Your task to perform on an android device: turn pop-ups on in chrome Image 0: 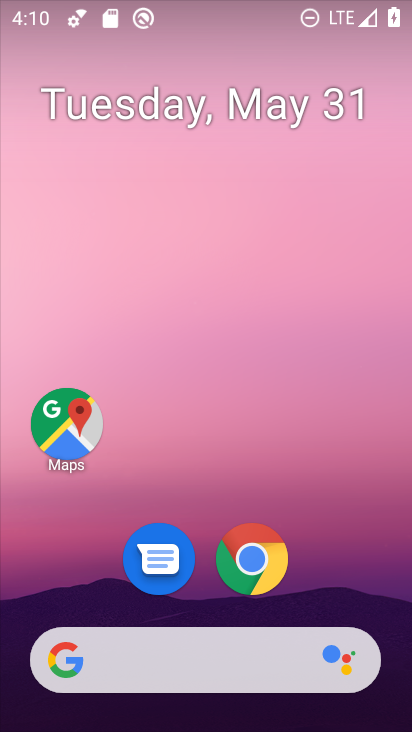
Step 0: click (257, 562)
Your task to perform on an android device: turn pop-ups on in chrome Image 1: 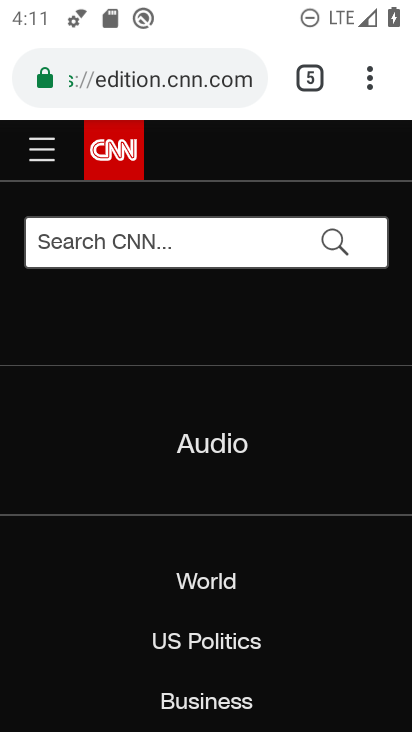
Step 1: click (373, 84)
Your task to perform on an android device: turn pop-ups on in chrome Image 2: 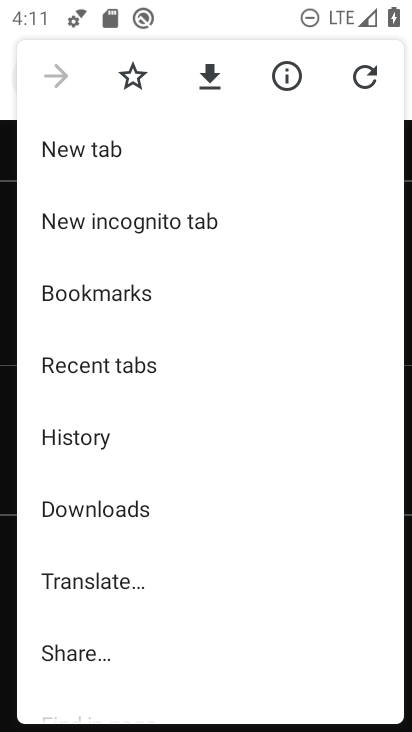
Step 2: drag from (111, 658) to (113, 404)
Your task to perform on an android device: turn pop-ups on in chrome Image 3: 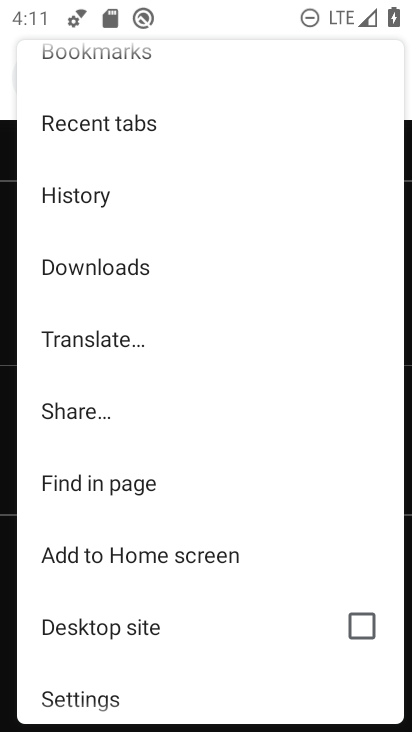
Step 3: drag from (117, 676) to (126, 262)
Your task to perform on an android device: turn pop-ups on in chrome Image 4: 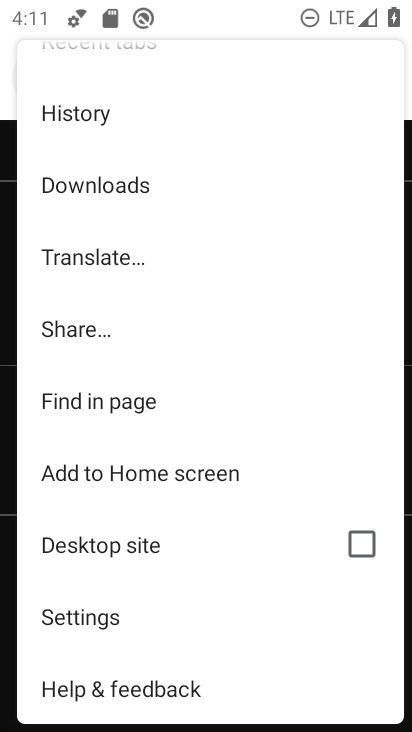
Step 4: click (97, 616)
Your task to perform on an android device: turn pop-ups on in chrome Image 5: 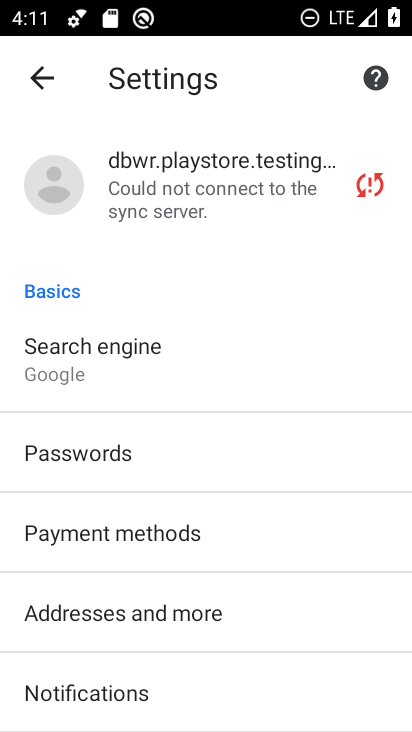
Step 5: drag from (160, 657) to (160, 532)
Your task to perform on an android device: turn pop-ups on in chrome Image 6: 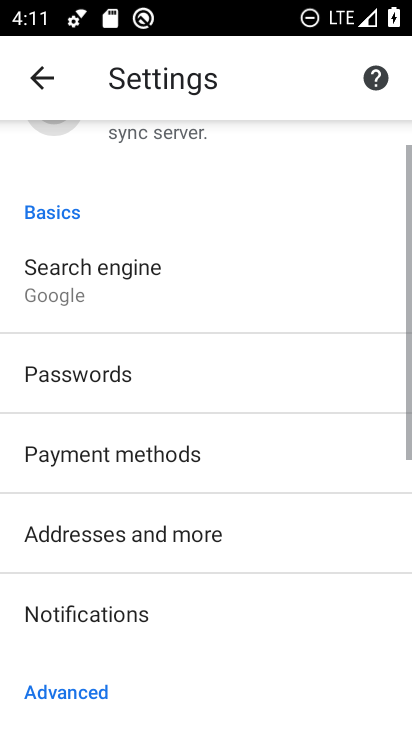
Step 6: drag from (161, 469) to (161, 287)
Your task to perform on an android device: turn pop-ups on in chrome Image 7: 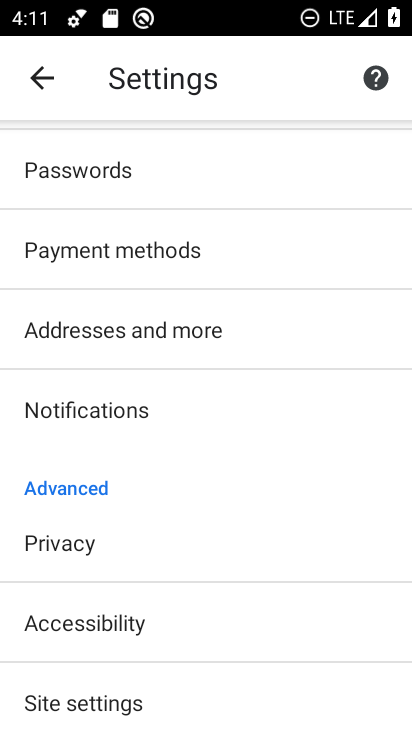
Step 7: click (120, 697)
Your task to perform on an android device: turn pop-ups on in chrome Image 8: 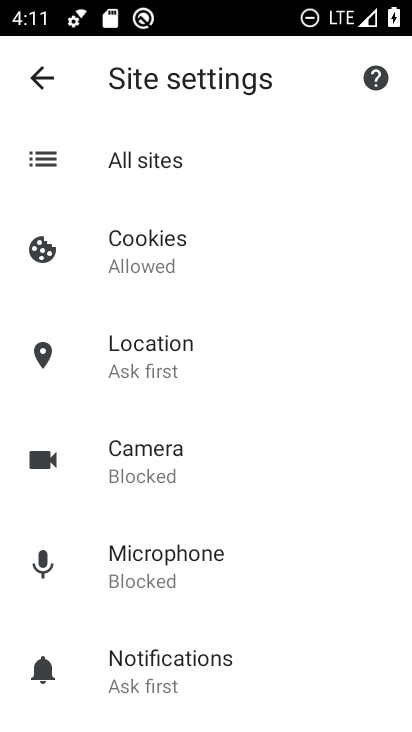
Step 8: drag from (176, 703) to (183, 288)
Your task to perform on an android device: turn pop-ups on in chrome Image 9: 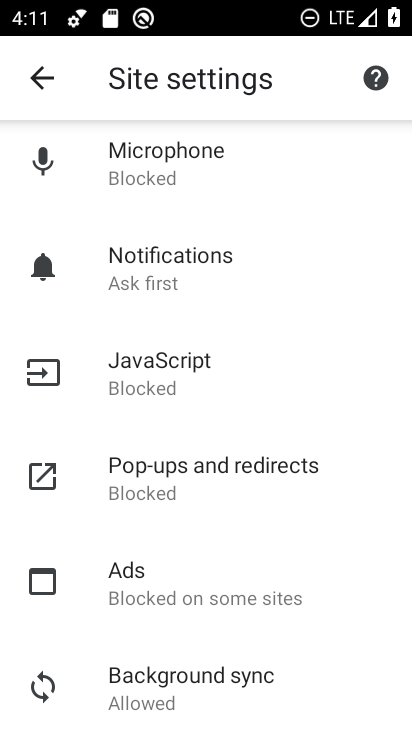
Step 9: click (178, 466)
Your task to perform on an android device: turn pop-ups on in chrome Image 10: 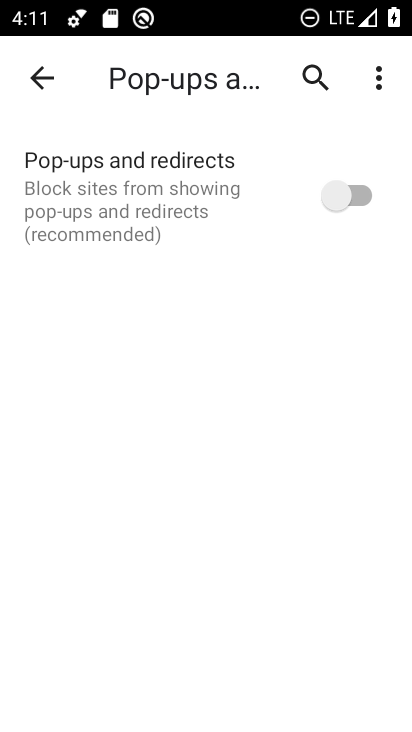
Step 10: click (357, 197)
Your task to perform on an android device: turn pop-ups on in chrome Image 11: 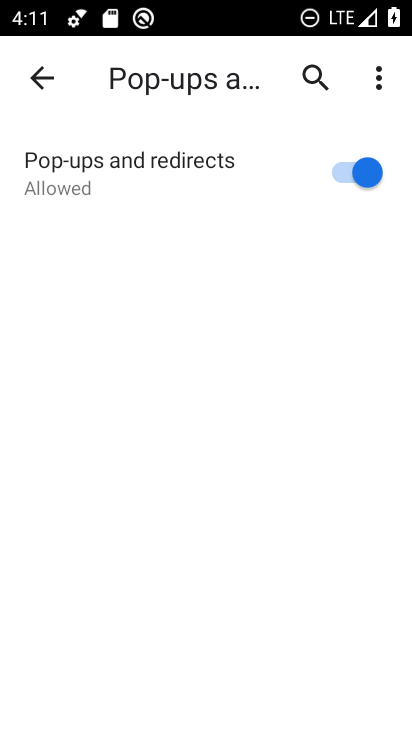
Step 11: task complete